Your task to perform on an android device: Play the last video I watched on Youtube Image 0: 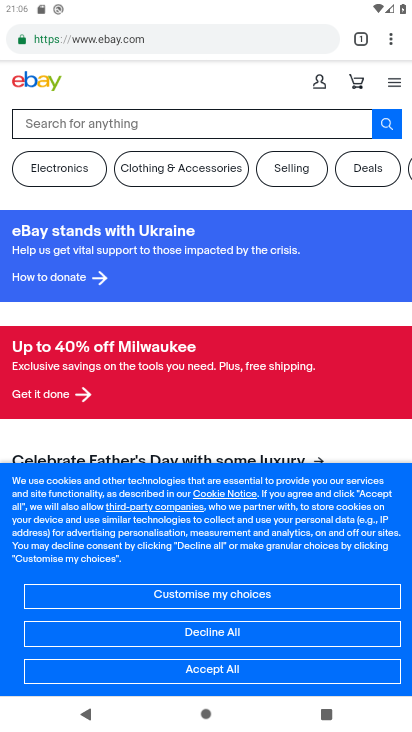
Step 0: press back button
Your task to perform on an android device: Play the last video I watched on Youtube Image 1: 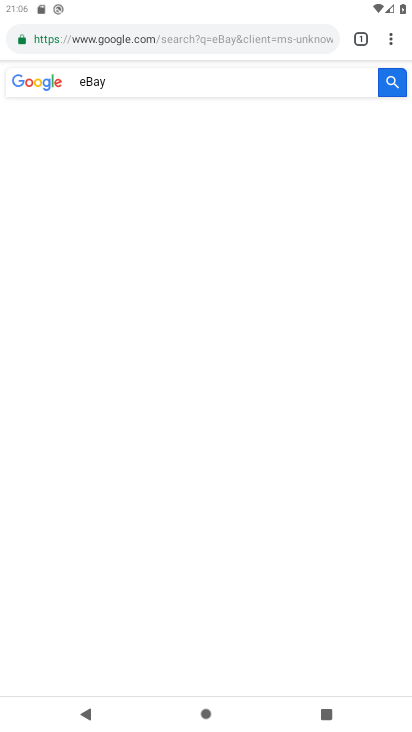
Step 1: press back button
Your task to perform on an android device: Play the last video I watched on Youtube Image 2: 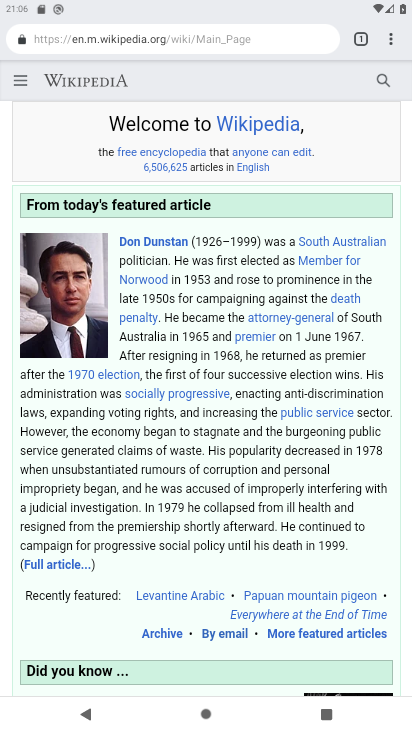
Step 2: press back button
Your task to perform on an android device: Play the last video I watched on Youtube Image 3: 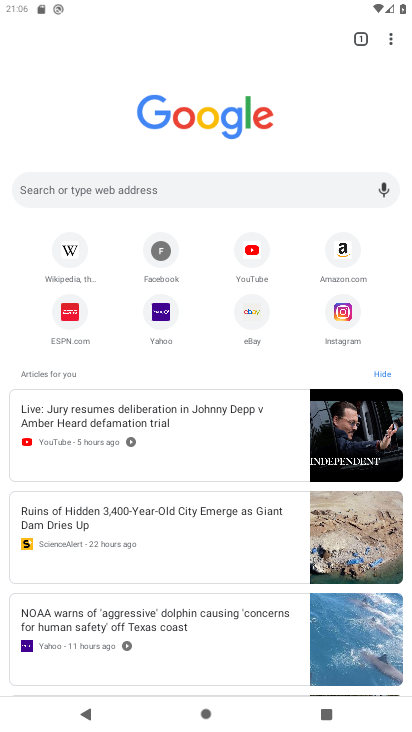
Step 3: press back button
Your task to perform on an android device: Play the last video I watched on Youtube Image 4: 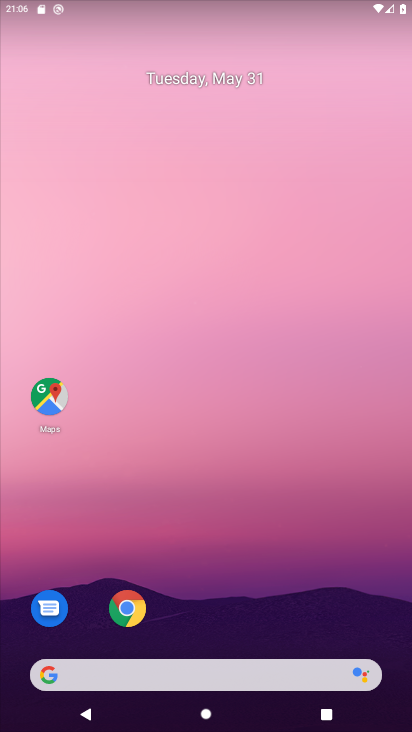
Step 4: drag from (222, 573) to (186, 8)
Your task to perform on an android device: Play the last video I watched on Youtube Image 5: 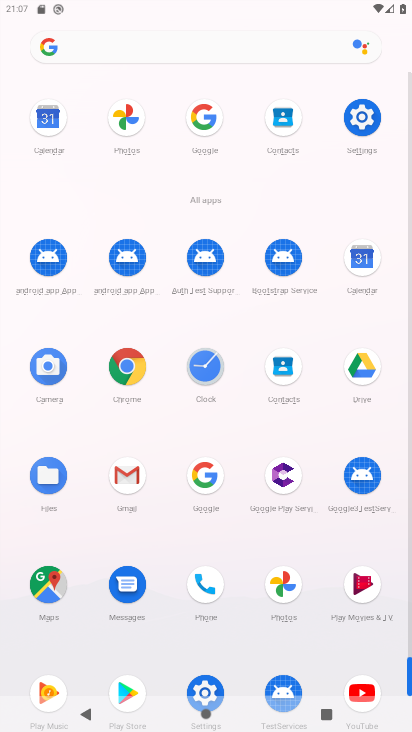
Step 5: drag from (237, 545) to (238, 359)
Your task to perform on an android device: Play the last video I watched on Youtube Image 6: 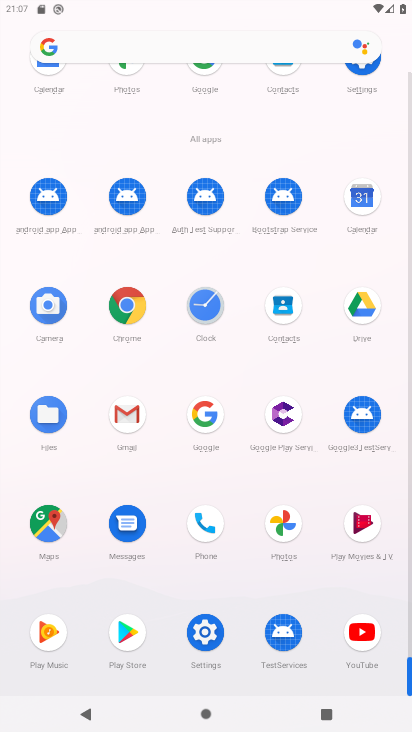
Step 6: click (362, 633)
Your task to perform on an android device: Play the last video I watched on Youtube Image 7: 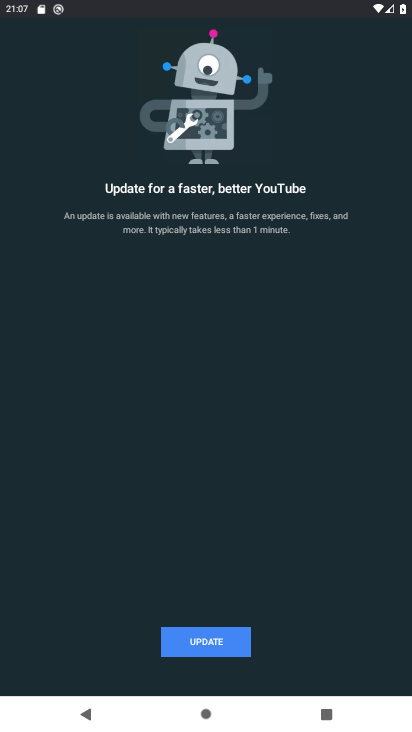
Step 7: click (206, 647)
Your task to perform on an android device: Play the last video I watched on Youtube Image 8: 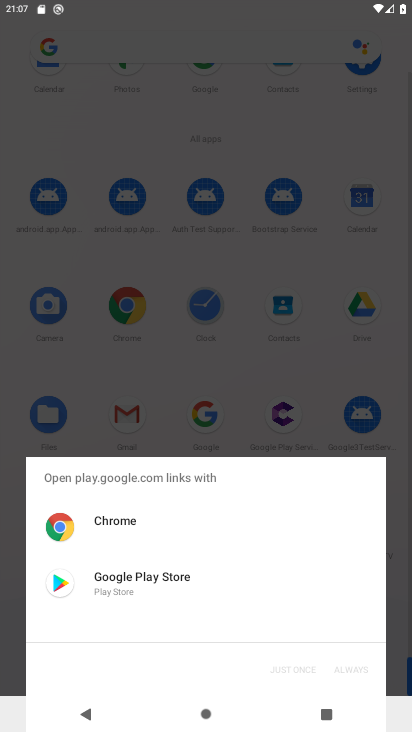
Step 8: click (101, 589)
Your task to perform on an android device: Play the last video I watched on Youtube Image 9: 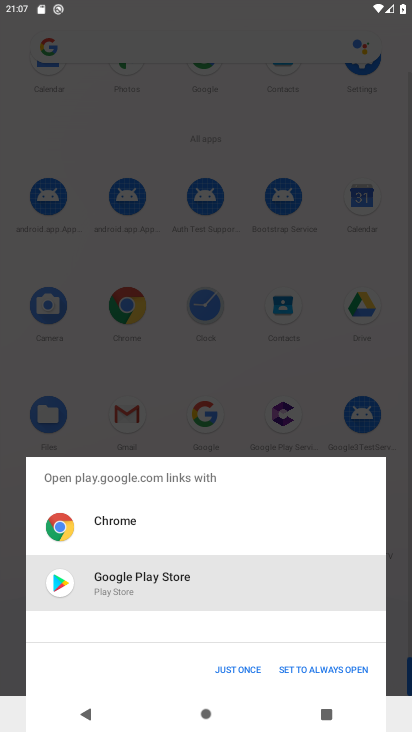
Step 9: click (237, 671)
Your task to perform on an android device: Play the last video I watched on Youtube Image 10: 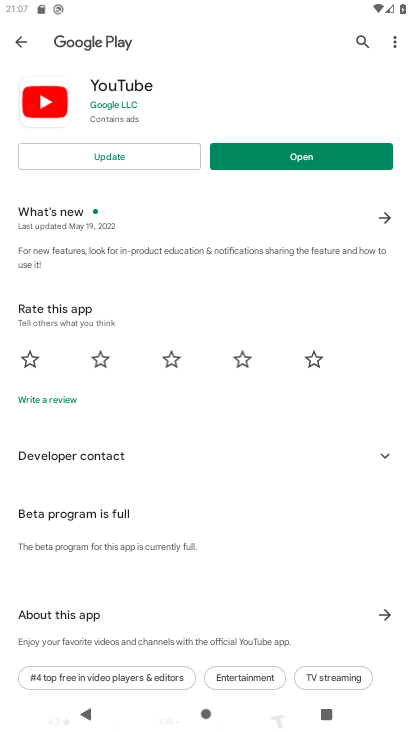
Step 10: click (112, 165)
Your task to perform on an android device: Play the last video I watched on Youtube Image 11: 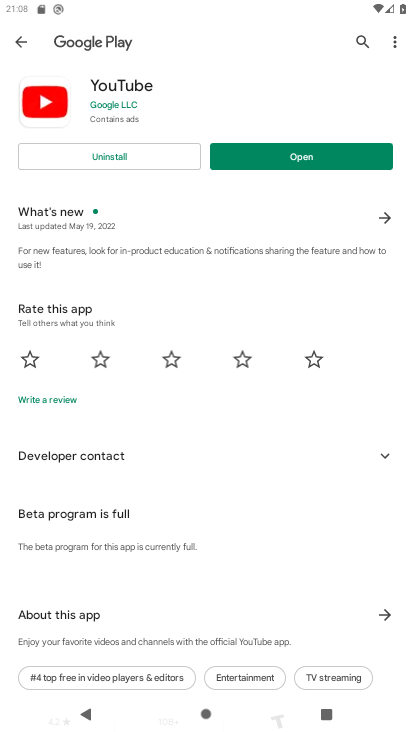
Step 11: click (270, 158)
Your task to perform on an android device: Play the last video I watched on Youtube Image 12: 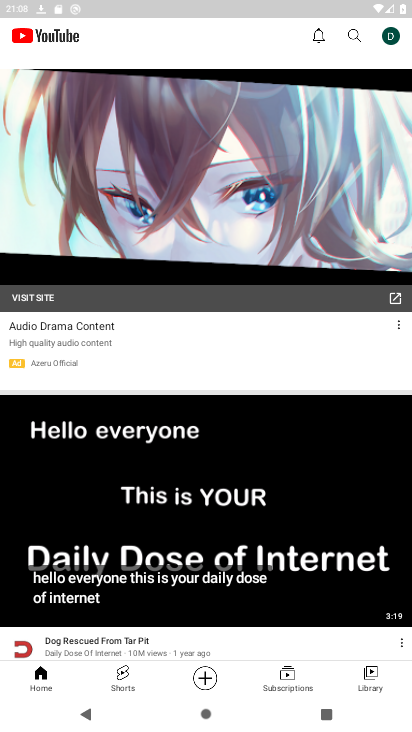
Step 12: click (375, 677)
Your task to perform on an android device: Play the last video I watched on Youtube Image 13: 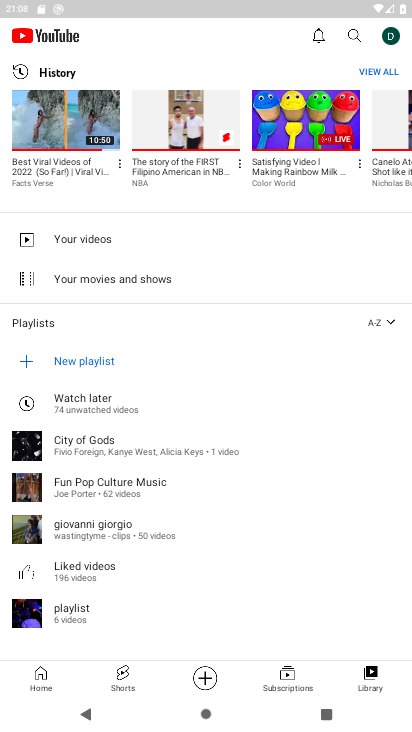
Step 13: click (64, 132)
Your task to perform on an android device: Play the last video I watched on Youtube Image 14: 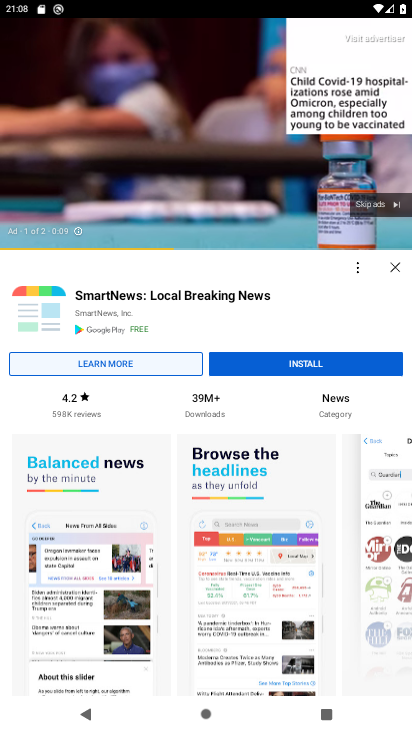
Step 14: click (391, 210)
Your task to perform on an android device: Play the last video I watched on Youtube Image 15: 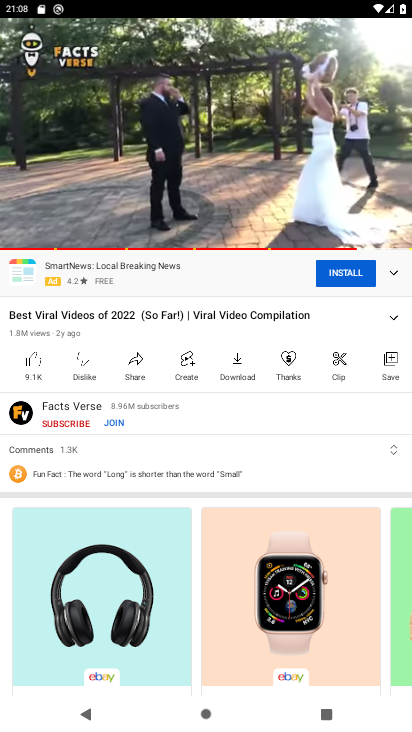
Step 15: click (233, 138)
Your task to perform on an android device: Play the last video I watched on Youtube Image 16: 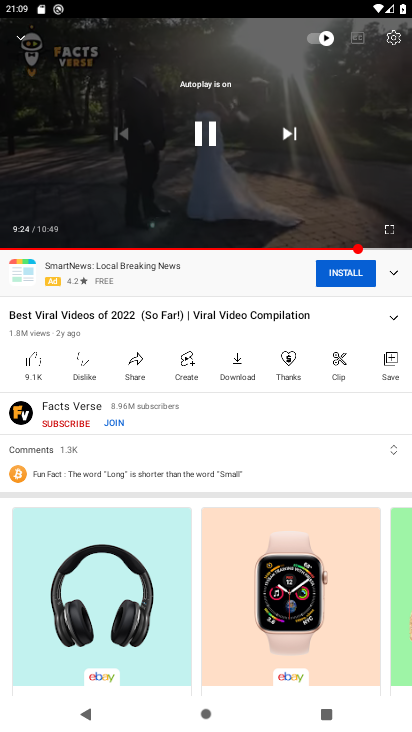
Step 16: click (212, 127)
Your task to perform on an android device: Play the last video I watched on Youtube Image 17: 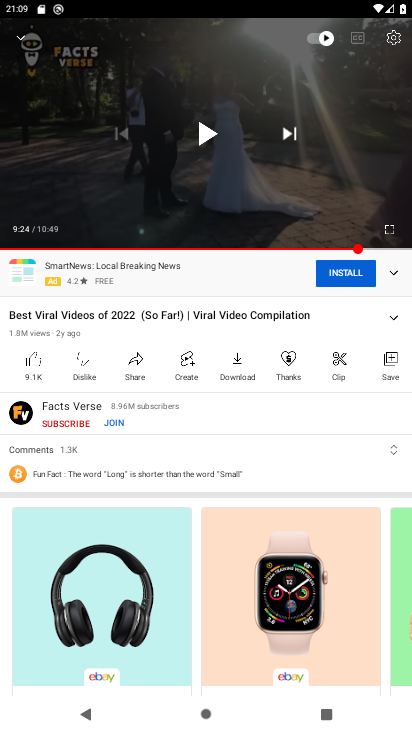
Step 17: task complete